Your task to perform on an android device: Open Google Maps and go to "Timeline" Image 0: 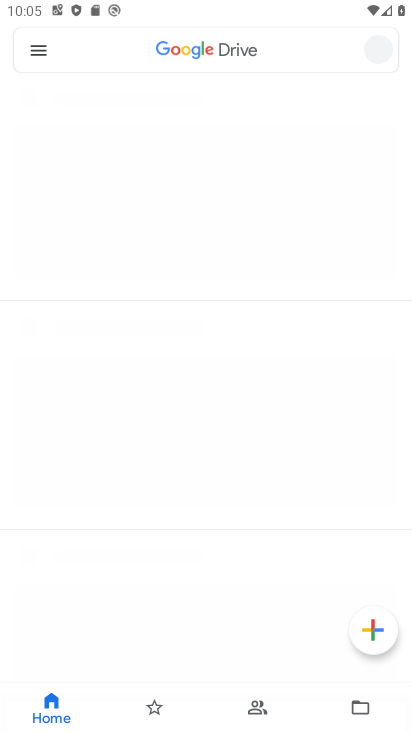
Step 0: drag from (273, 655) to (286, 545)
Your task to perform on an android device: Open Google Maps and go to "Timeline" Image 1: 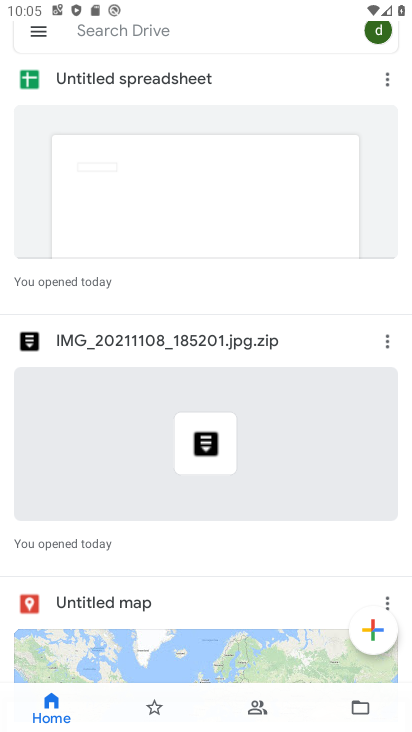
Step 1: press home button
Your task to perform on an android device: Open Google Maps and go to "Timeline" Image 2: 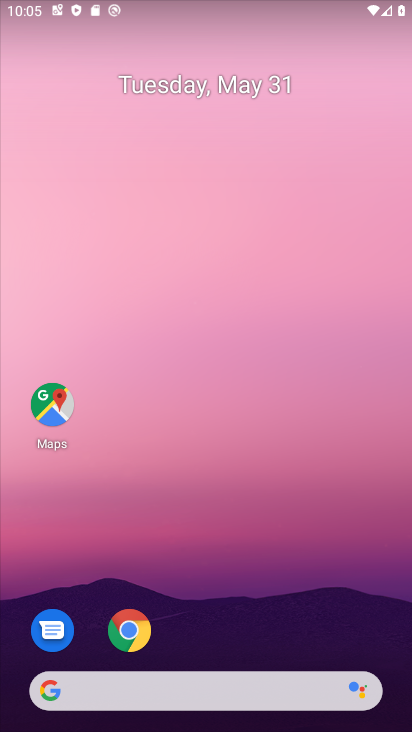
Step 2: drag from (244, 670) to (279, 231)
Your task to perform on an android device: Open Google Maps and go to "Timeline" Image 3: 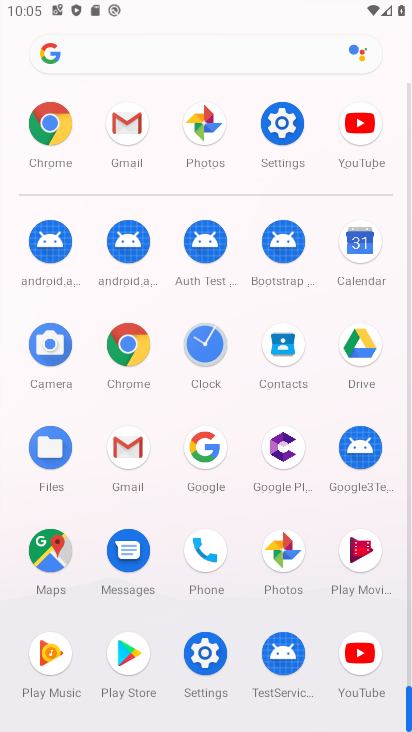
Step 3: click (52, 562)
Your task to perform on an android device: Open Google Maps and go to "Timeline" Image 4: 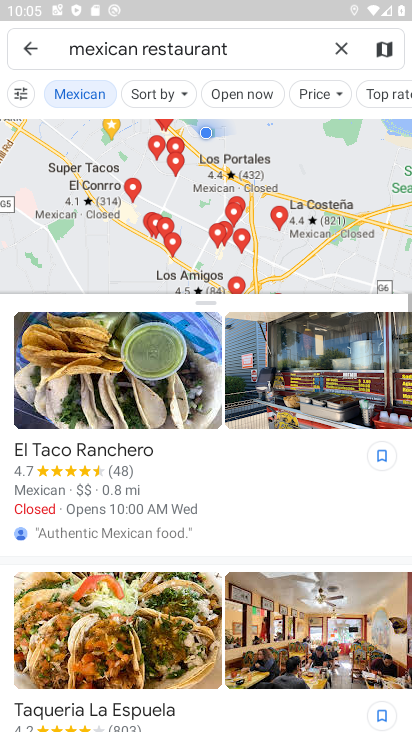
Step 4: click (31, 49)
Your task to perform on an android device: Open Google Maps and go to "Timeline" Image 5: 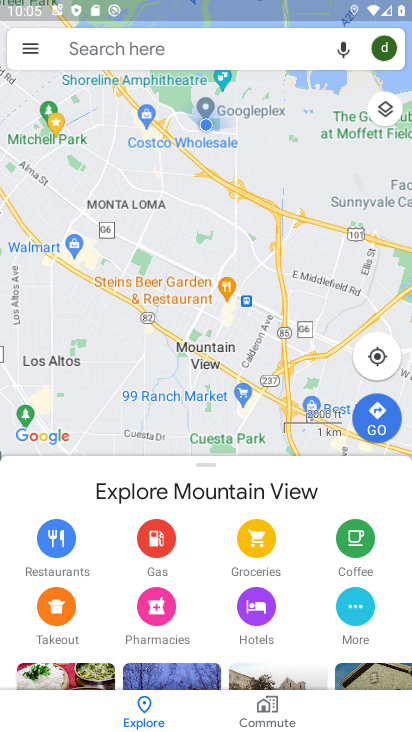
Step 5: click (39, 59)
Your task to perform on an android device: Open Google Maps and go to "Timeline" Image 6: 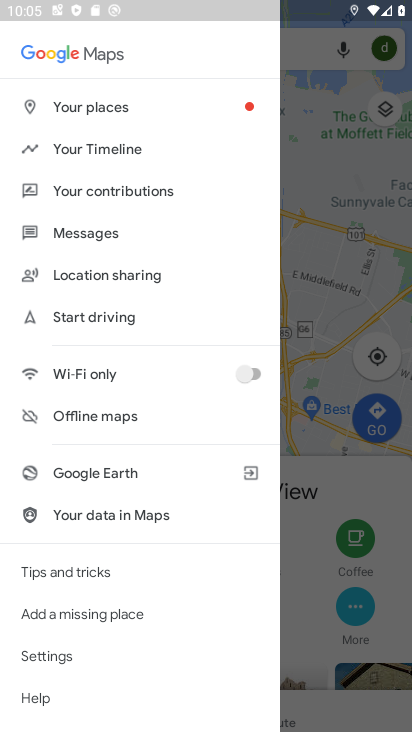
Step 6: click (151, 149)
Your task to perform on an android device: Open Google Maps and go to "Timeline" Image 7: 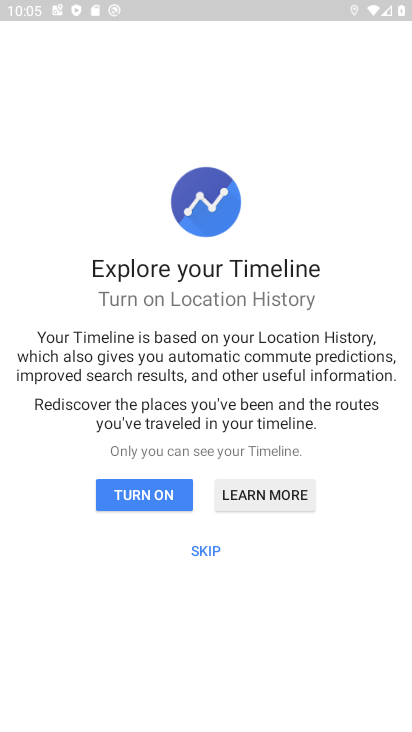
Step 7: click (204, 549)
Your task to perform on an android device: Open Google Maps and go to "Timeline" Image 8: 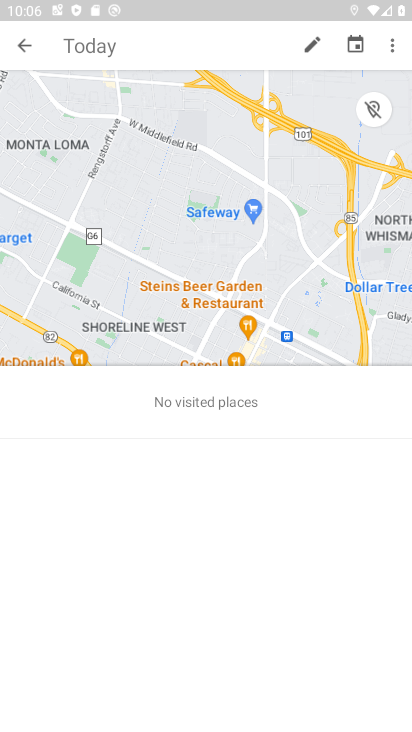
Step 8: task complete